Your task to perform on an android device: toggle location history Image 0: 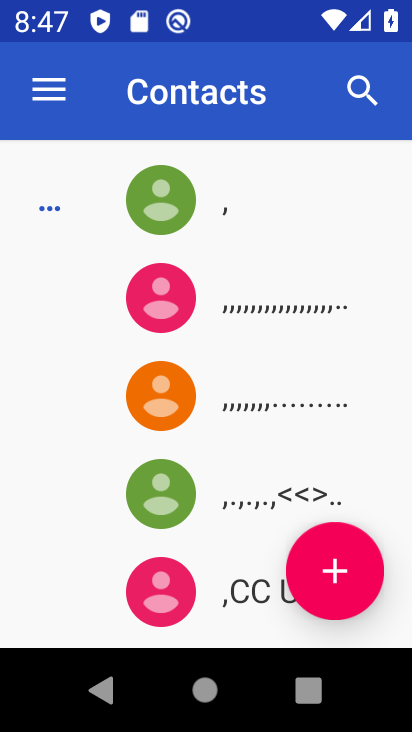
Step 0: press home button
Your task to perform on an android device: toggle location history Image 1: 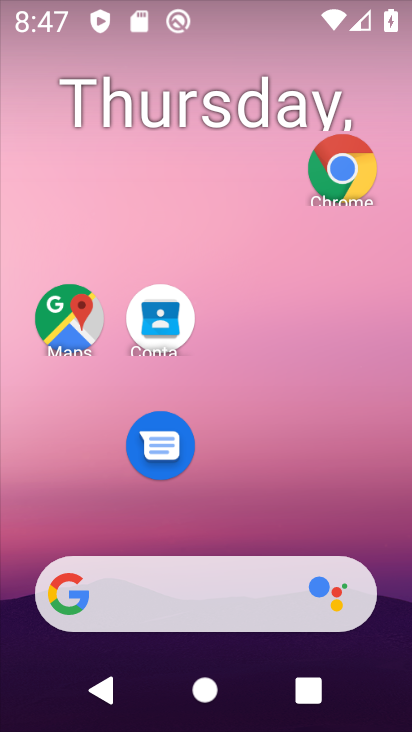
Step 1: drag from (283, 639) to (234, 155)
Your task to perform on an android device: toggle location history Image 2: 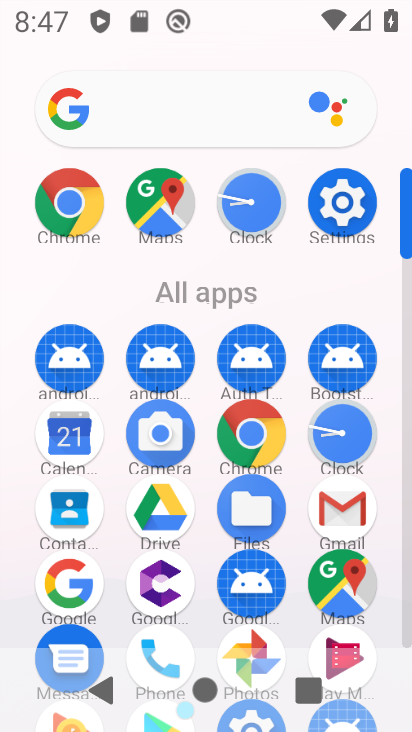
Step 2: click (341, 193)
Your task to perform on an android device: toggle location history Image 3: 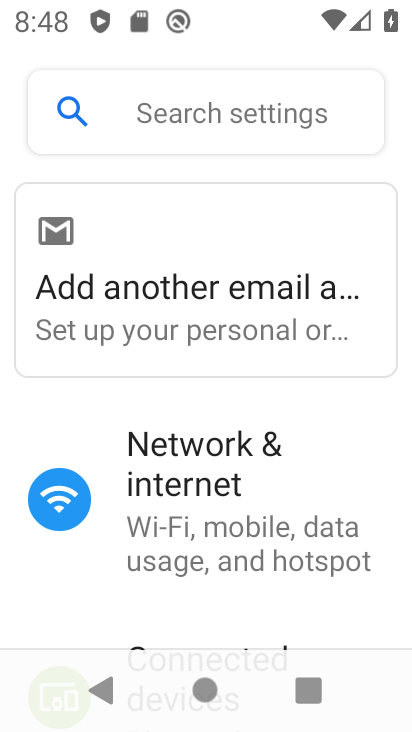
Step 3: click (207, 109)
Your task to perform on an android device: toggle location history Image 4: 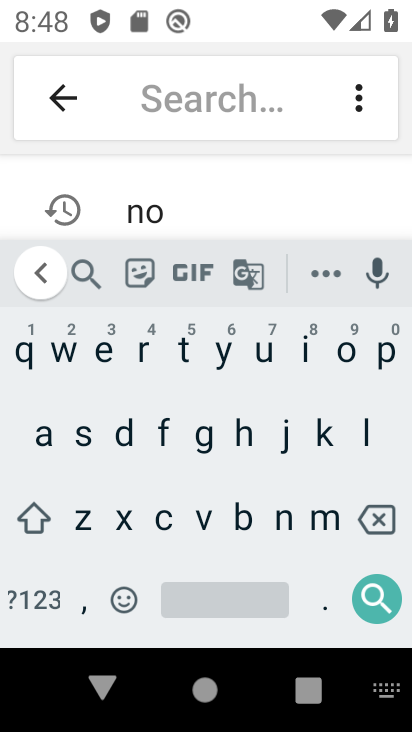
Step 4: click (363, 429)
Your task to perform on an android device: toggle location history Image 5: 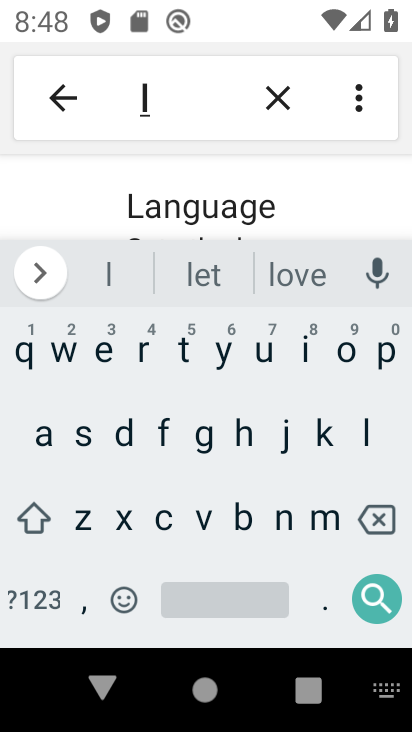
Step 5: click (338, 359)
Your task to perform on an android device: toggle location history Image 6: 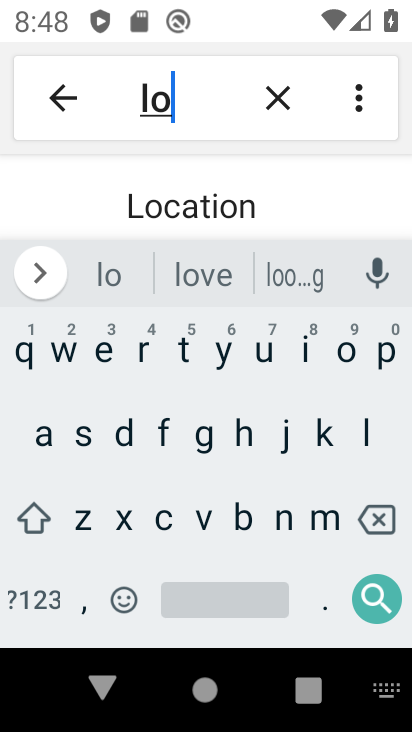
Step 6: press back button
Your task to perform on an android device: toggle location history Image 7: 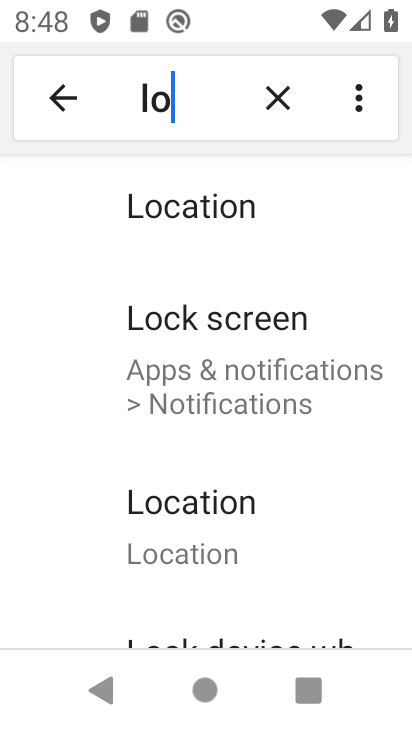
Step 7: click (226, 510)
Your task to perform on an android device: toggle location history Image 8: 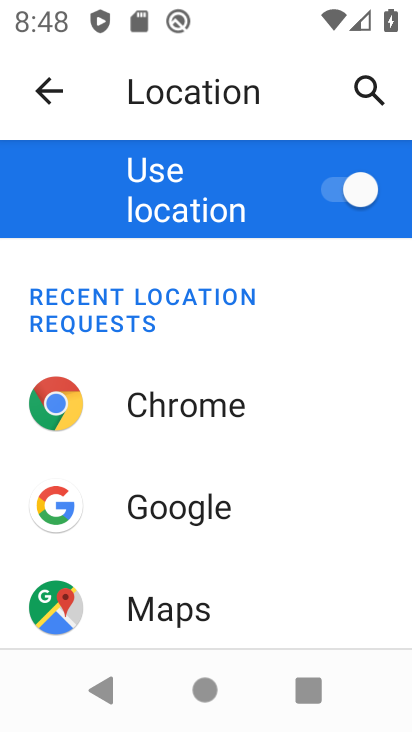
Step 8: drag from (228, 580) to (235, 292)
Your task to perform on an android device: toggle location history Image 9: 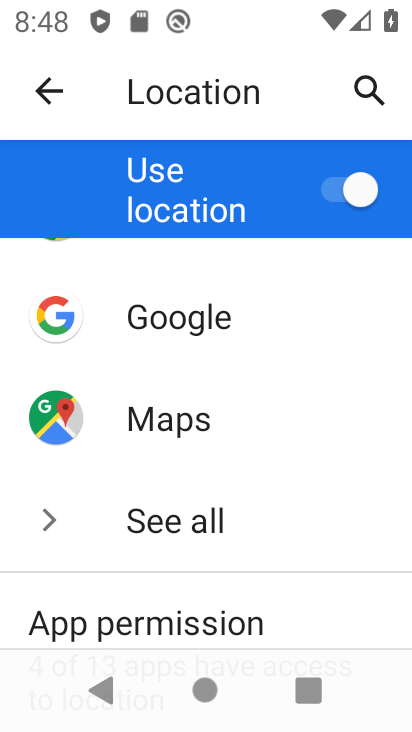
Step 9: drag from (183, 543) to (246, 299)
Your task to perform on an android device: toggle location history Image 10: 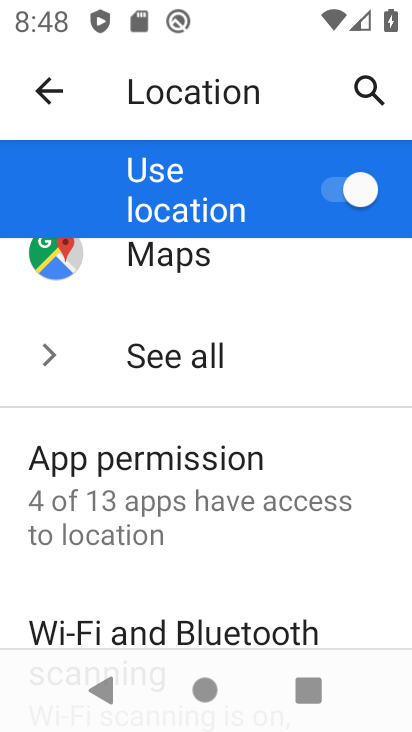
Step 10: drag from (181, 505) to (252, 335)
Your task to perform on an android device: toggle location history Image 11: 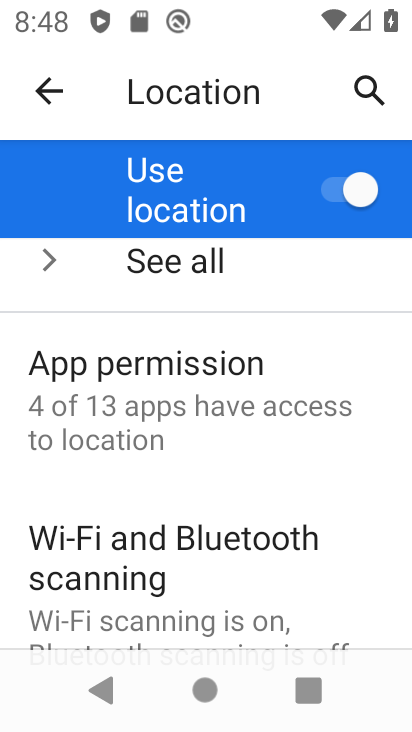
Step 11: drag from (158, 561) to (214, 368)
Your task to perform on an android device: toggle location history Image 12: 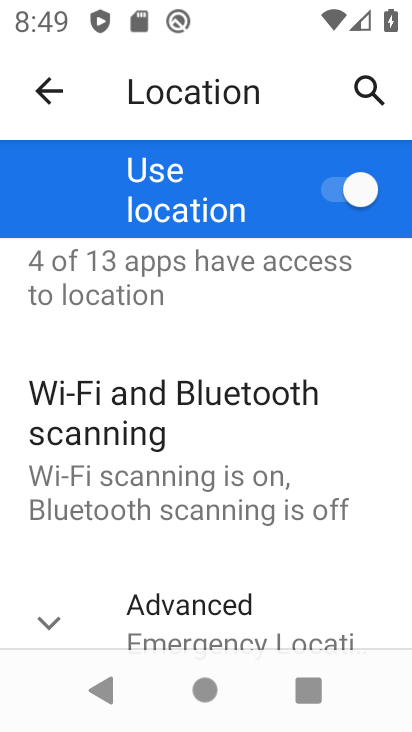
Step 12: drag from (208, 527) to (280, 306)
Your task to perform on an android device: toggle location history Image 13: 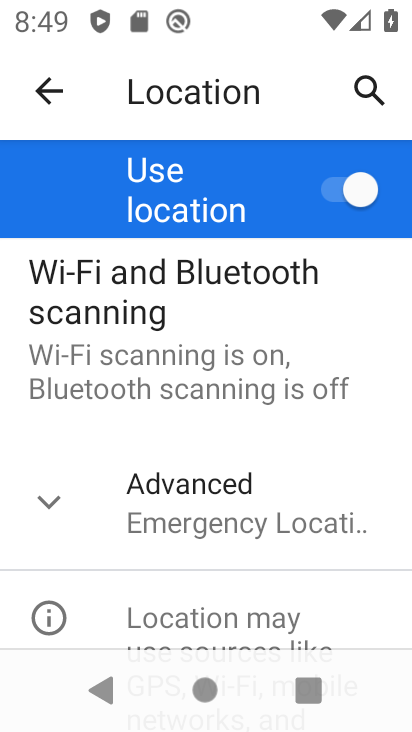
Step 13: click (132, 497)
Your task to perform on an android device: toggle location history Image 14: 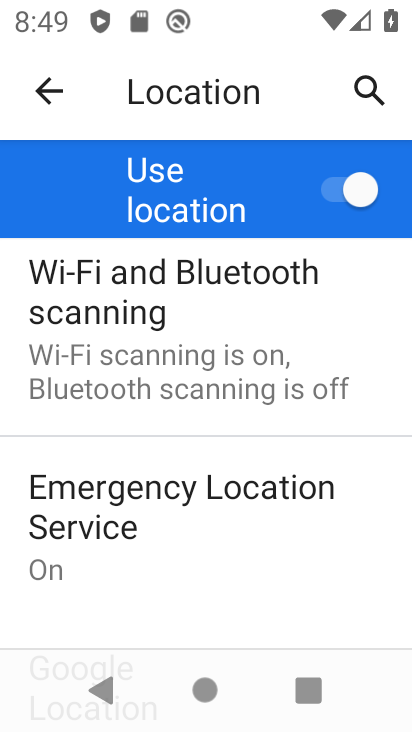
Step 14: drag from (176, 578) to (246, 332)
Your task to perform on an android device: toggle location history Image 15: 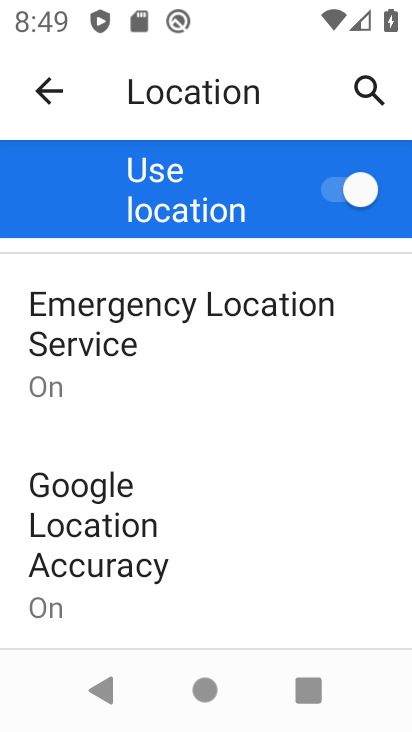
Step 15: drag from (179, 555) to (309, 249)
Your task to perform on an android device: toggle location history Image 16: 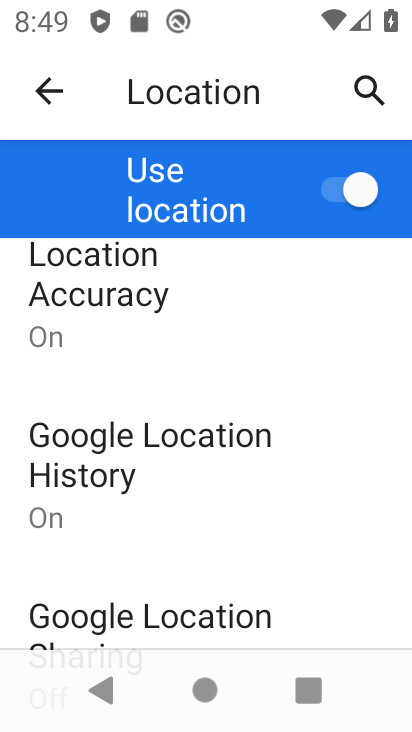
Step 16: click (183, 522)
Your task to perform on an android device: toggle location history Image 17: 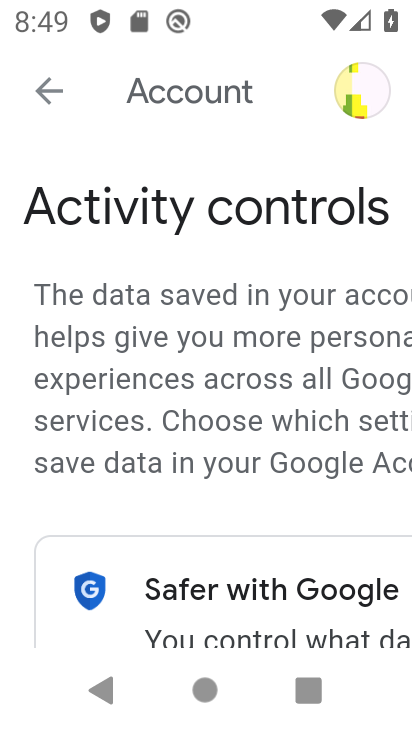
Step 17: task complete